Your task to perform on an android device: Search for seafood restaurants on Google Maps Image 0: 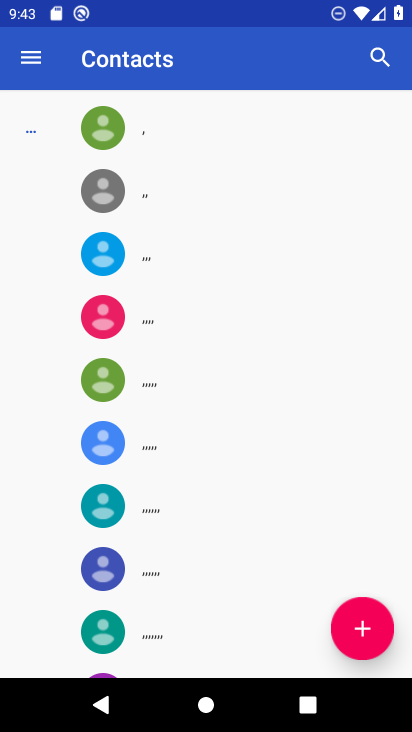
Step 0: press home button
Your task to perform on an android device: Search for seafood restaurants on Google Maps Image 1: 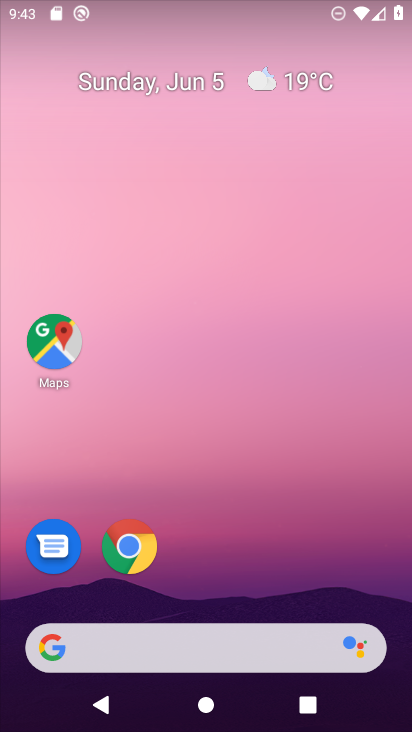
Step 1: click (61, 349)
Your task to perform on an android device: Search for seafood restaurants on Google Maps Image 2: 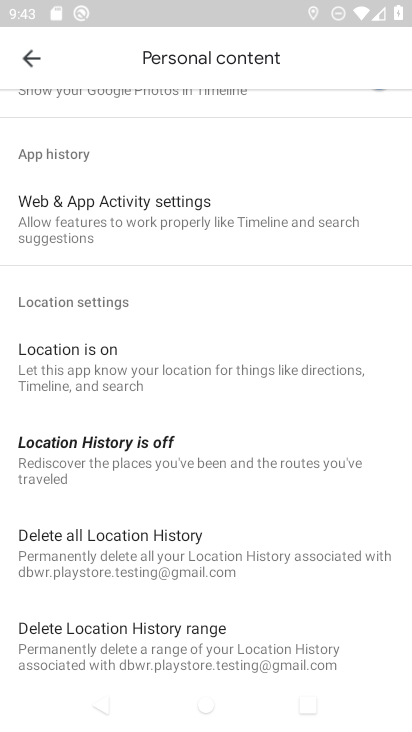
Step 2: click (24, 74)
Your task to perform on an android device: Search for seafood restaurants on Google Maps Image 3: 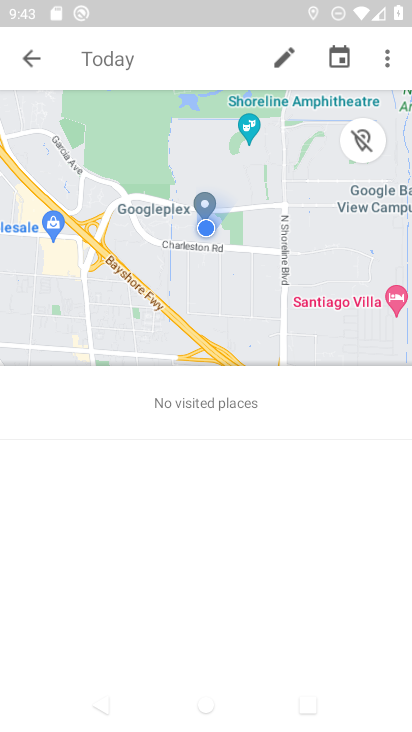
Step 3: click (33, 59)
Your task to perform on an android device: Search for seafood restaurants on Google Maps Image 4: 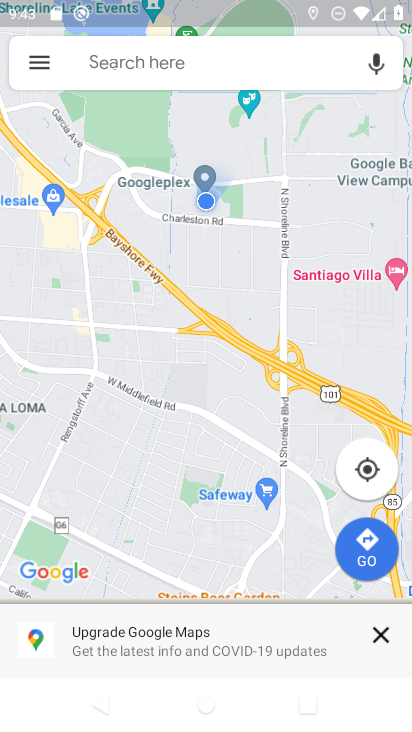
Step 4: click (189, 53)
Your task to perform on an android device: Search for seafood restaurants on Google Maps Image 5: 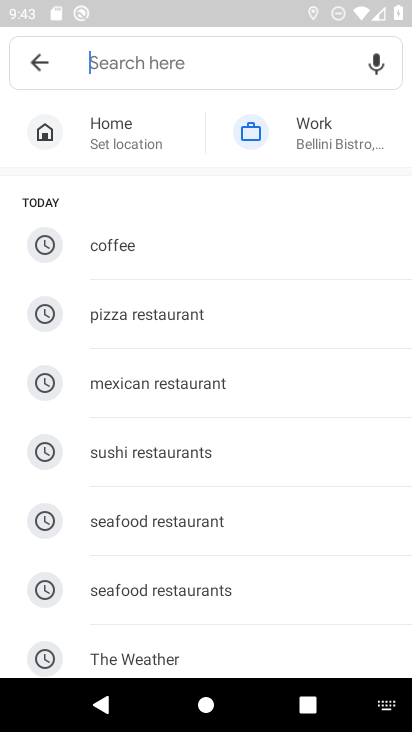
Step 5: click (189, 521)
Your task to perform on an android device: Search for seafood restaurants on Google Maps Image 6: 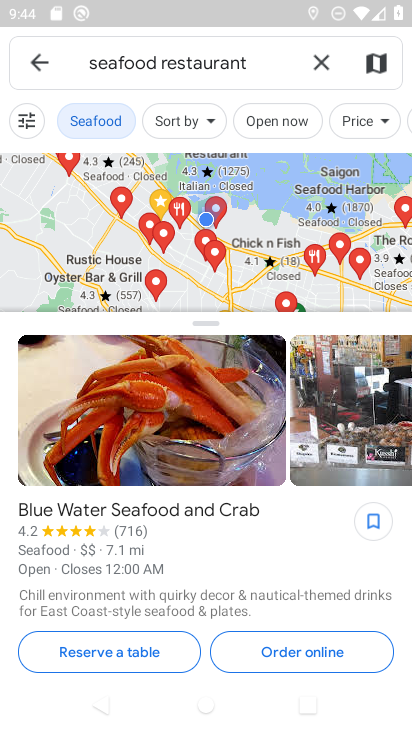
Step 6: task complete